Your task to perform on an android device: choose inbox layout in the gmail app Image 0: 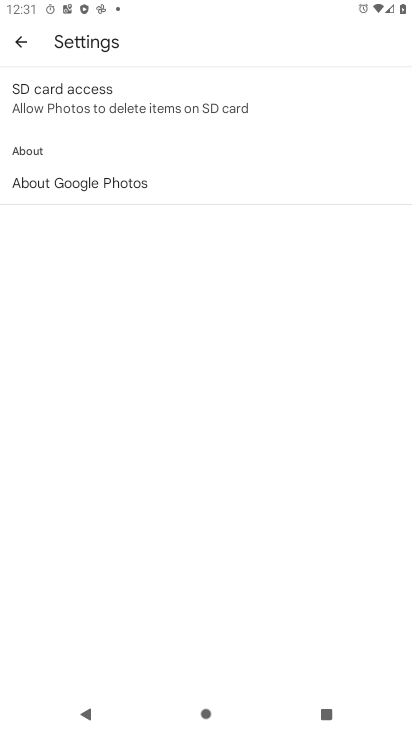
Step 0: press home button
Your task to perform on an android device: choose inbox layout in the gmail app Image 1: 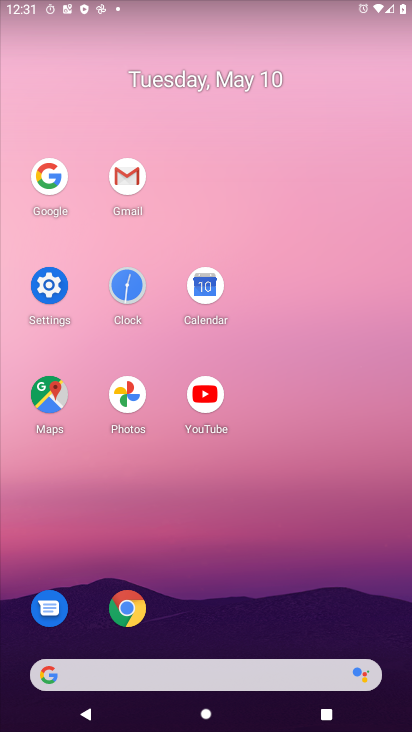
Step 1: click (133, 183)
Your task to perform on an android device: choose inbox layout in the gmail app Image 2: 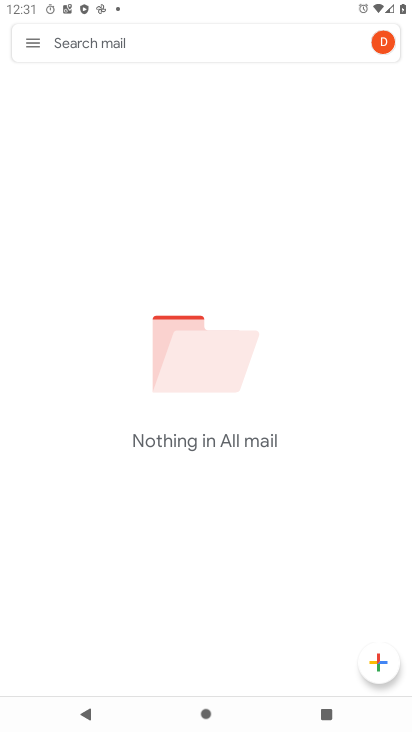
Step 2: click (27, 55)
Your task to perform on an android device: choose inbox layout in the gmail app Image 3: 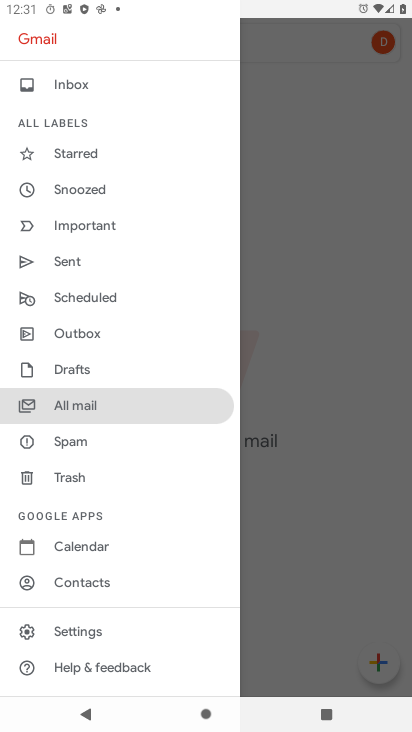
Step 3: click (118, 636)
Your task to perform on an android device: choose inbox layout in the gmail app Image 4: 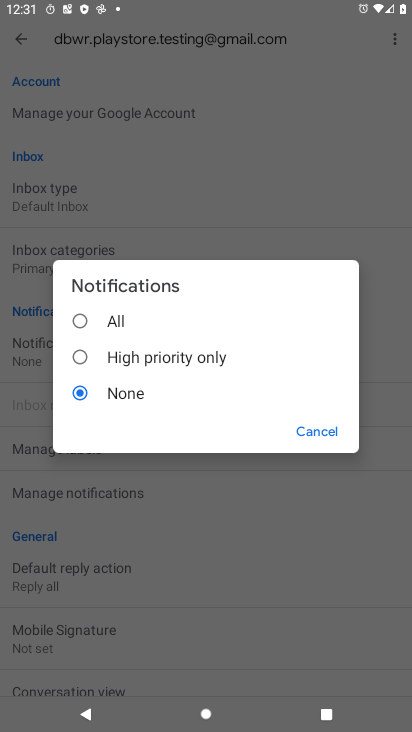
Step 4: click (310, 430)
Your task to perform on an android device: choose inbox layout in the gmail app Image 5: 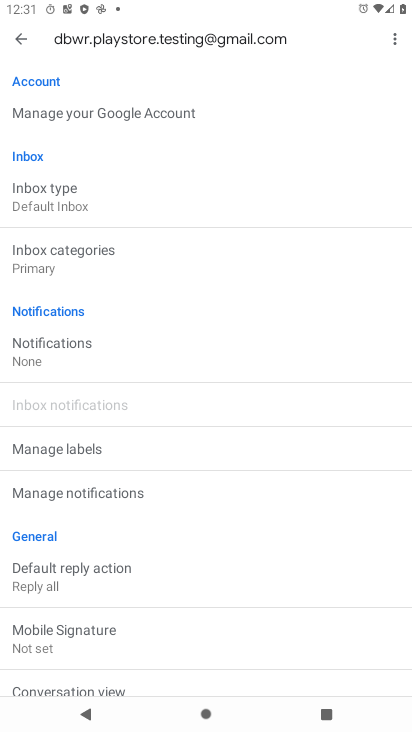
Step 5: click (47, 188)
Your task to perform on an android device: choose inbox layout in the gmail app Image 6: 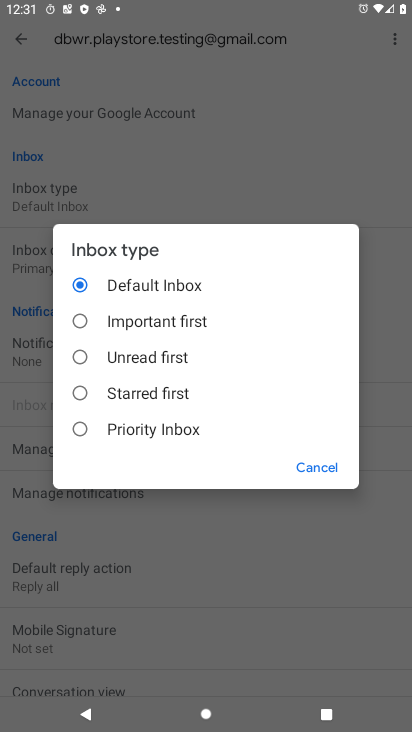
Step 6: task complete